Your task to perform on an android device: Open Amazon Image 0: 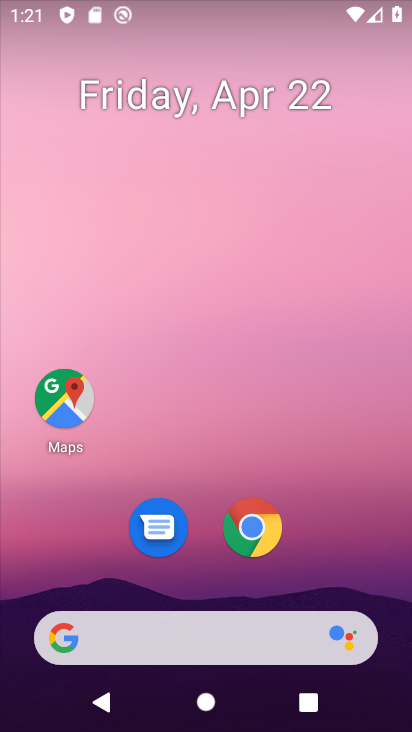
Step 0: drag from (200, 480) to (246, 0)
Your task to perform on an android device: Open Amazon Image 1: 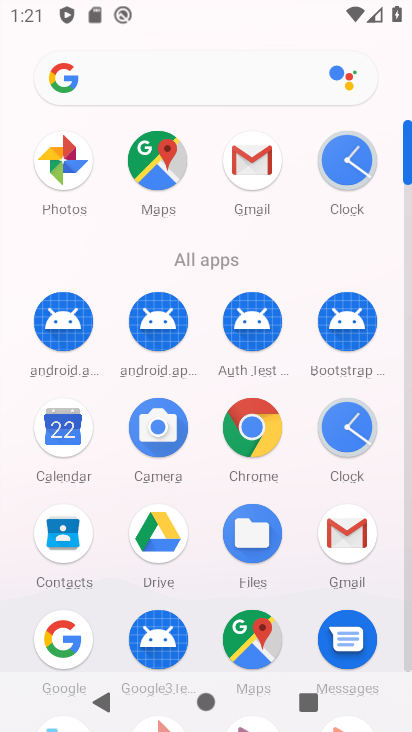
Step 1: click (253, 422)
Your task to perform on an android device: Open Amazon Image 2: 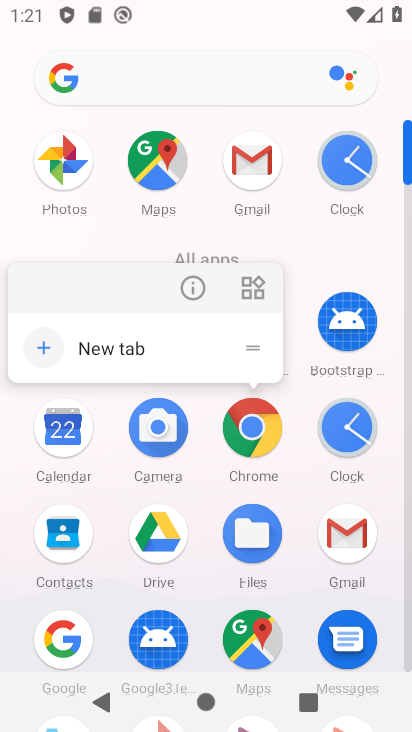
Step 2: click (198, 295)
Your task to perform on an android device: Open Amazon Image 3: 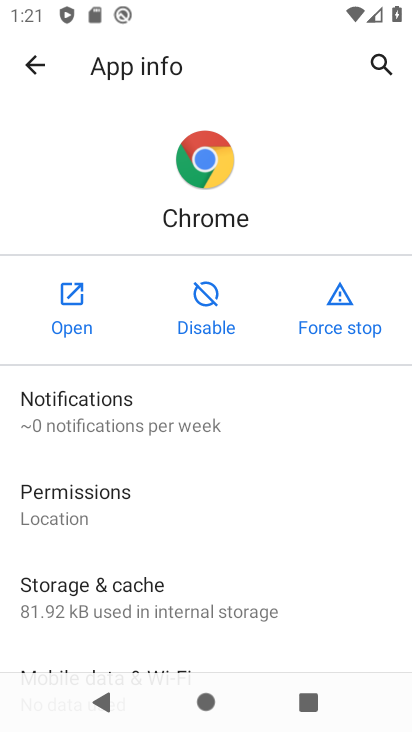
Step 3: click (81, 294)
Your task to perform on an android device: Open Amazon Image 4: 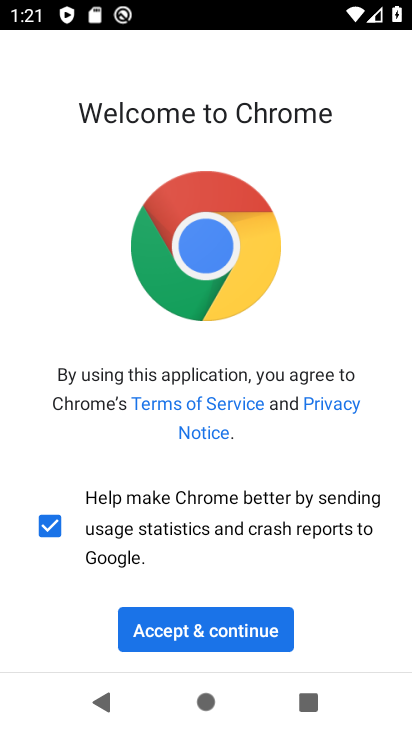
Step 4: click (165, 639)
Your task to perform on an android device: Open Amazon Image 5: 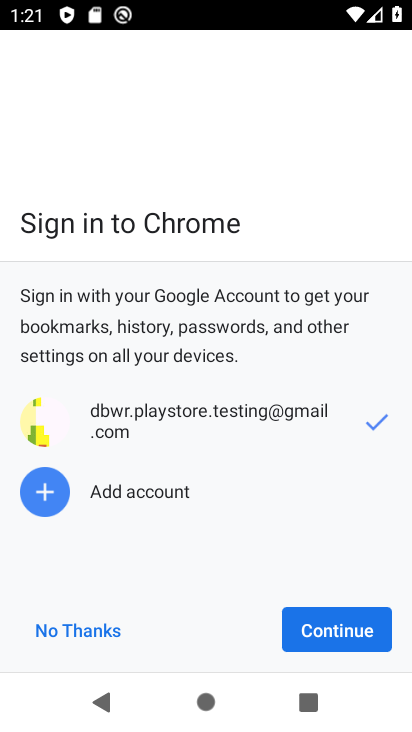
Step 5: click (328, 635)
Your task to perform on an android device: Open Amazon Image 6: 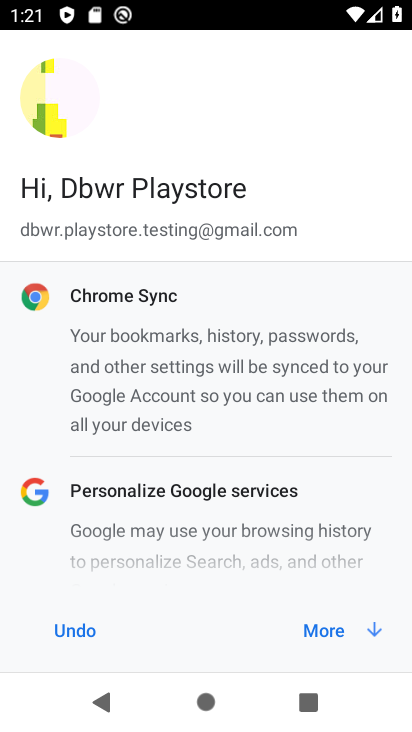
Step 6: click (328, 635)
Your task to perform on an android device: Open Amazon Image 7: 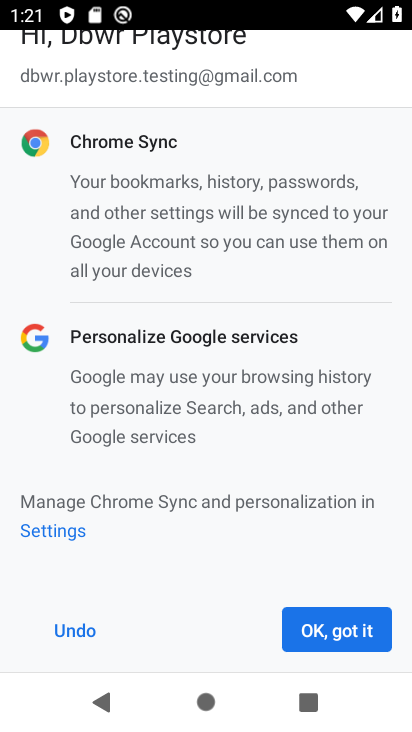
Step 7: click (318, 625)
Your task to perform on an android device: Open Amazon Image 8: 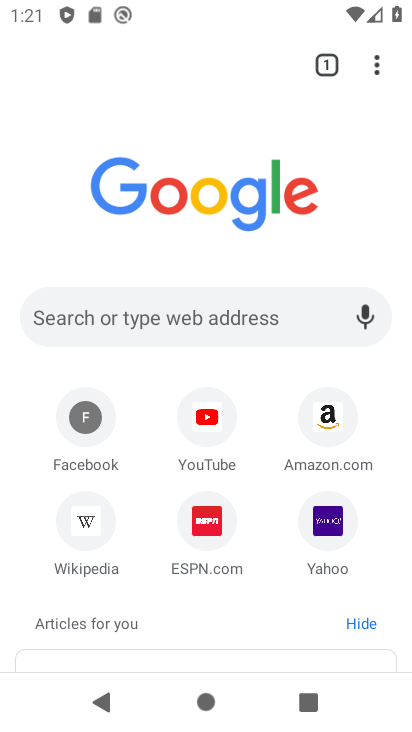
Step 8: click (322, 430)
Your task to perform on an android device: Open Amazon Image 9: 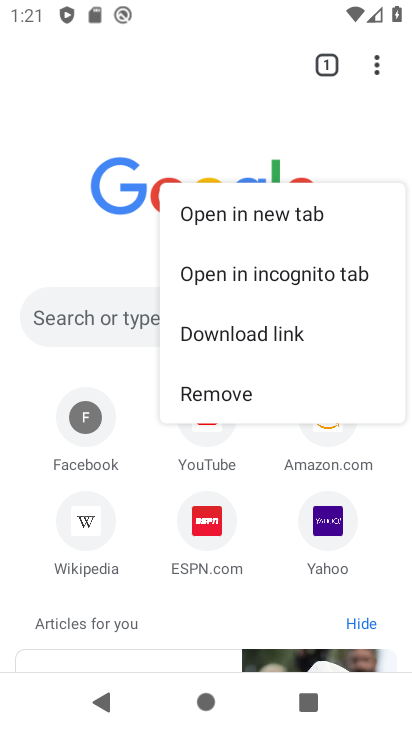
Step 9: click (284, 211)
Your task to perform on an android device: Open Amazon Image 10: 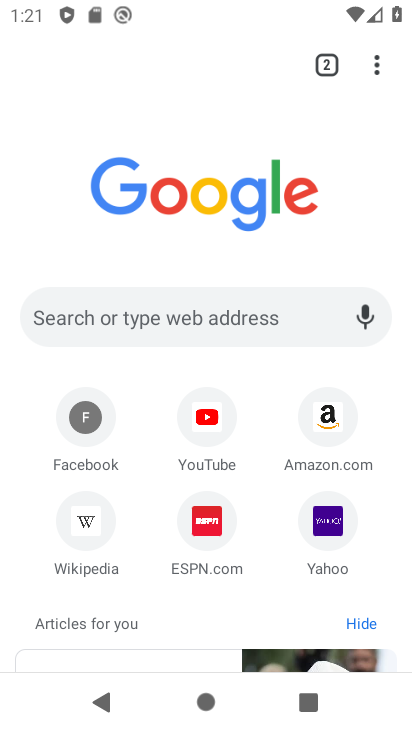
Step 10: drag from (269, 448) to (261, 205)
Your task to perform on an android device: Open Amazon Image 11: 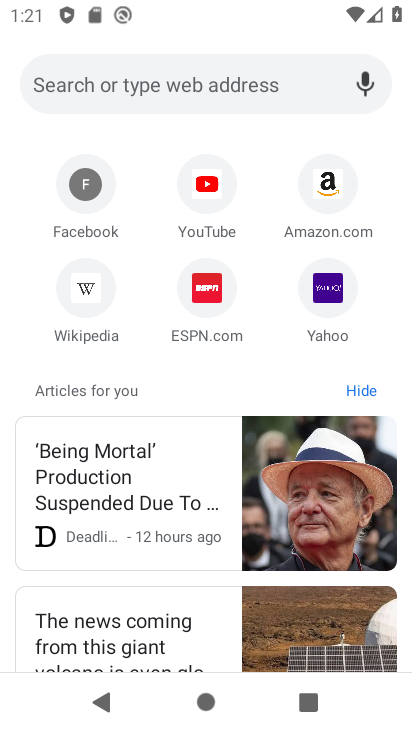
Step 11: click (326, 187)
Your task to perform on an android device: Open Amazon Image 12: 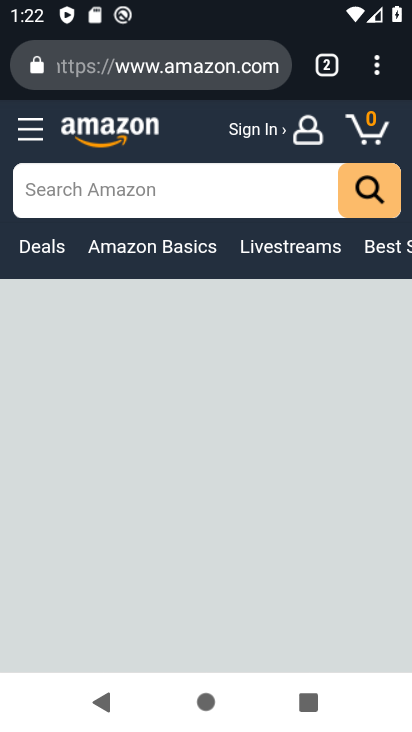
Step 12: task complete